Your task to perform on an android device: change alarm snooze length Image 0: 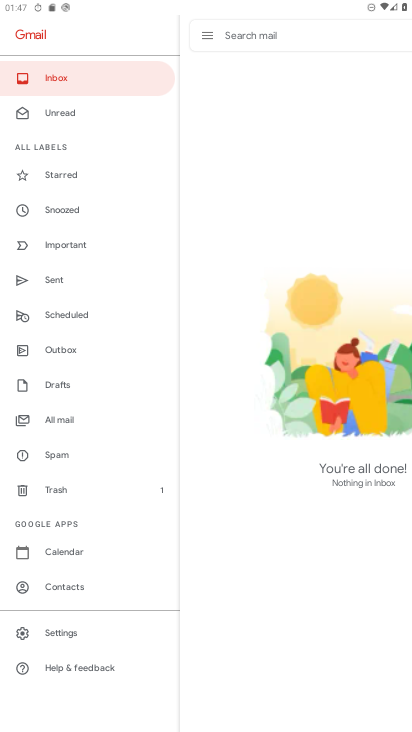
Step 0: press home button
Your task to perform on an android device: change alarm snooze length Image 1: 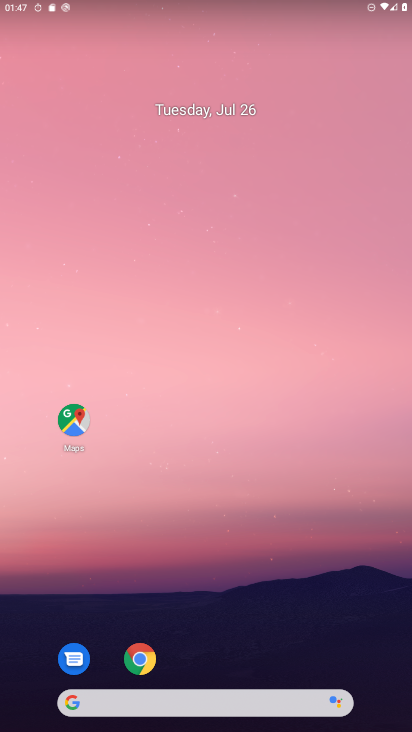
Step 1: drag from (48, 698) to (174, 383)
Your task to perform on an android device: change alarm snooze length Image 2: 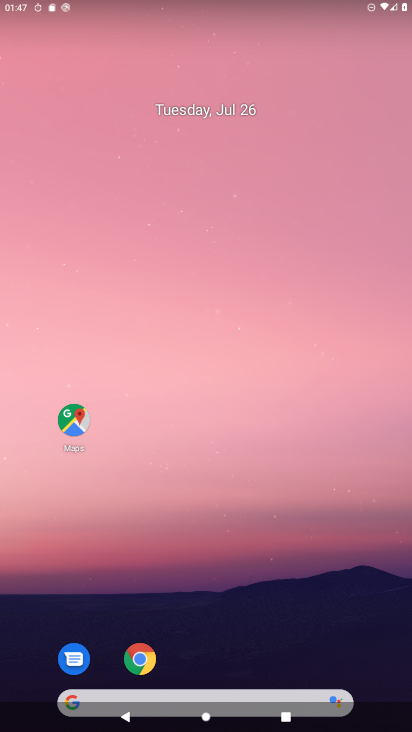
Step 2: drag from (106, 537) to (181, 129)
Your task to perform on an android device: change alarm snooze length Image 3: 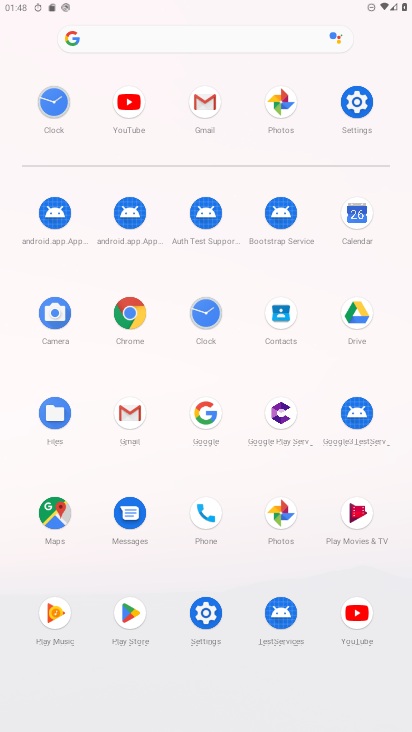
Step 3: click (184, 330)
Your task to perform on an android device: change alarm snooze length Image 4: 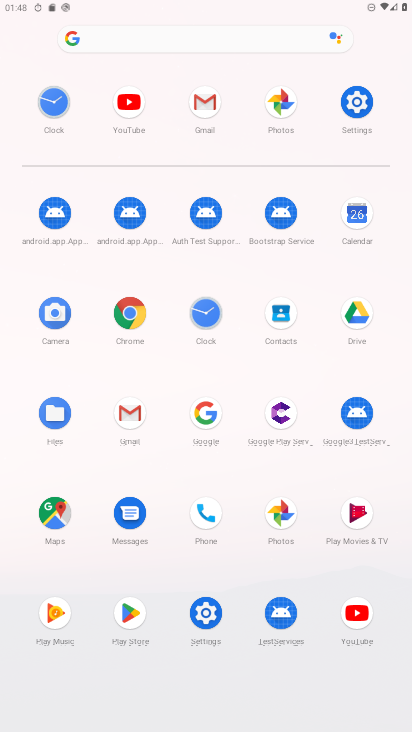
Step 4: click (192, 320)
Your task to perform on an android device: change alarm snooze length Image 5: 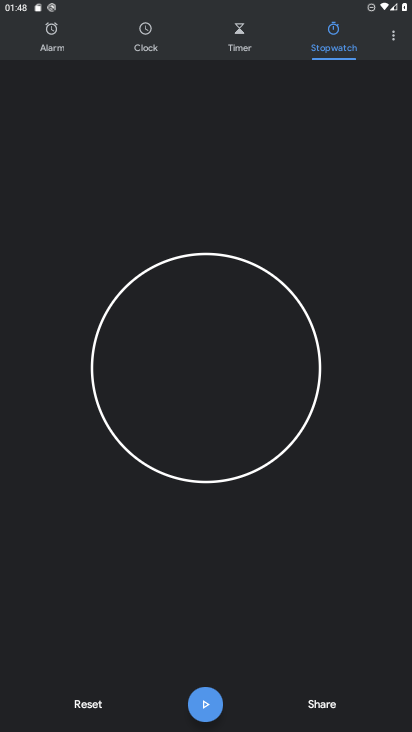
Step 5: click (46, 30)
Your task to perform on an android device: change alarm snooze length Image 6: 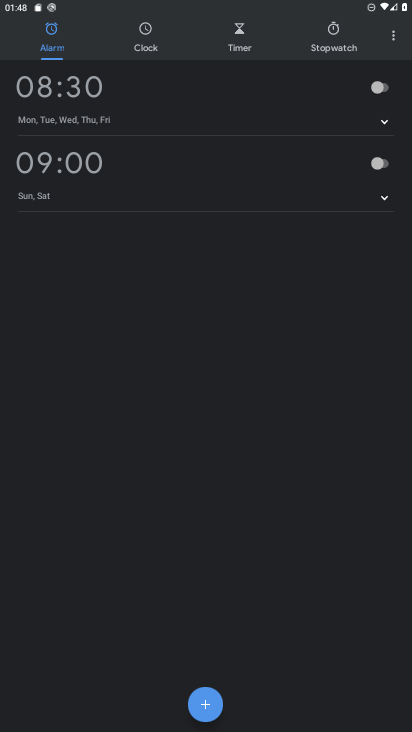
Step 6: click (390, 46)
Your task to perform on an android device: change alarm snooze length Image 7: 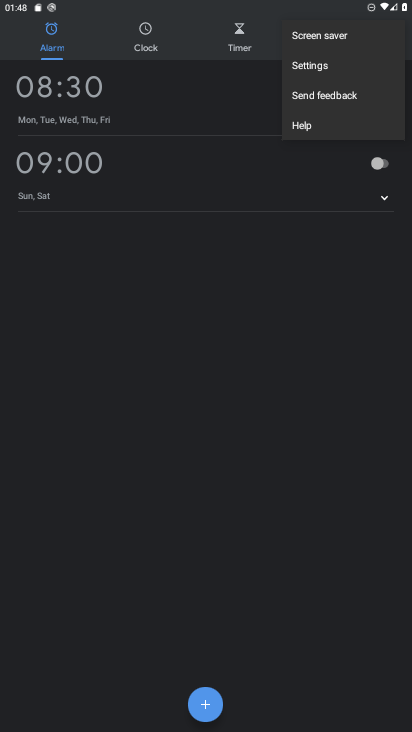
Step 7: click (321, 65)
Your task to perform on an android device: change alarm snooze length Image 8: 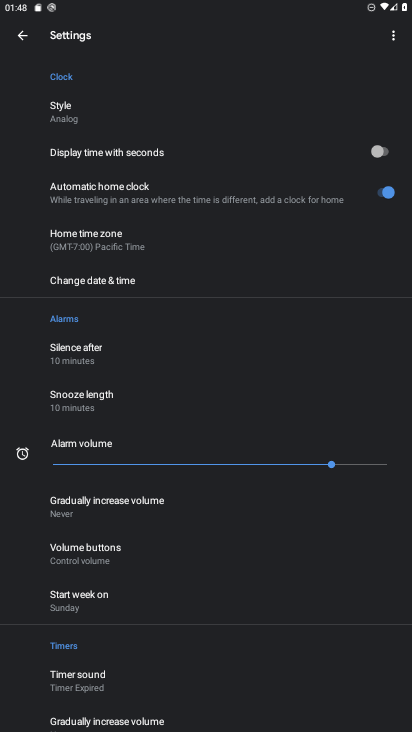
Step 8: click (94, 391)
Your task to perform on an android device: change alarm snooze length Image 9: 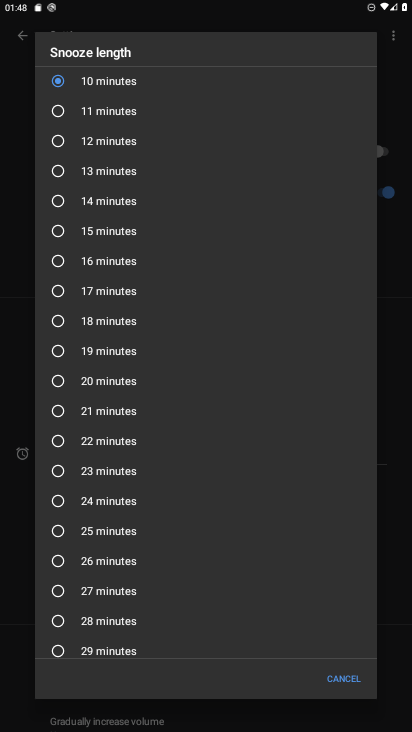
Step 9: click (64, 228)
Your task to perform on an android device: change alarm snooze length Image 10: 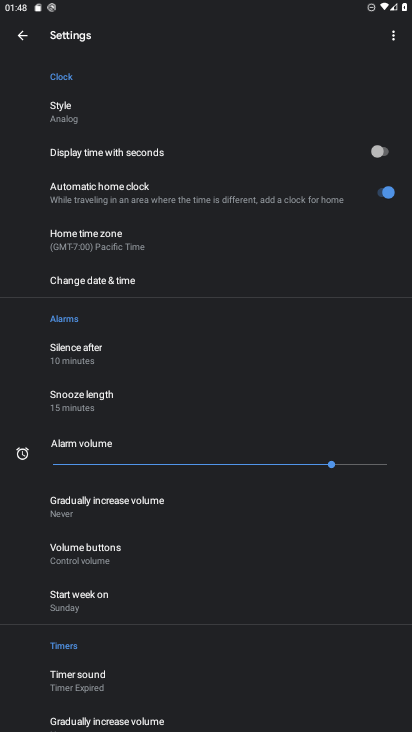
Step 10: task complete